Your task to perform on an android device: Search for vegetarian restaurants on Maps Image 0: 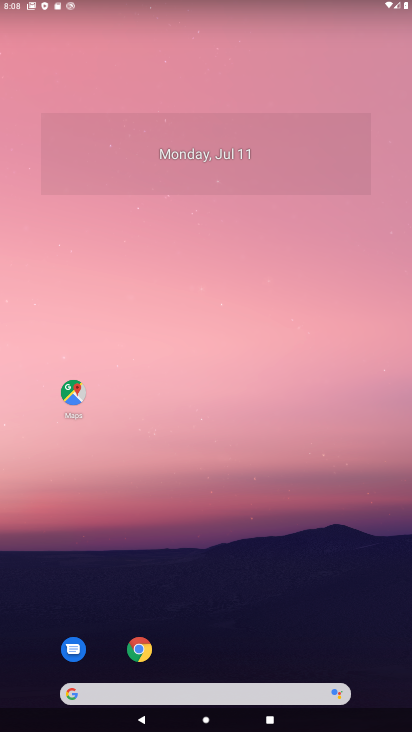
Step 0: click (71, 393)
Your task to perform on an android device: Search for vegetarian restaurants on Maps Image 1: 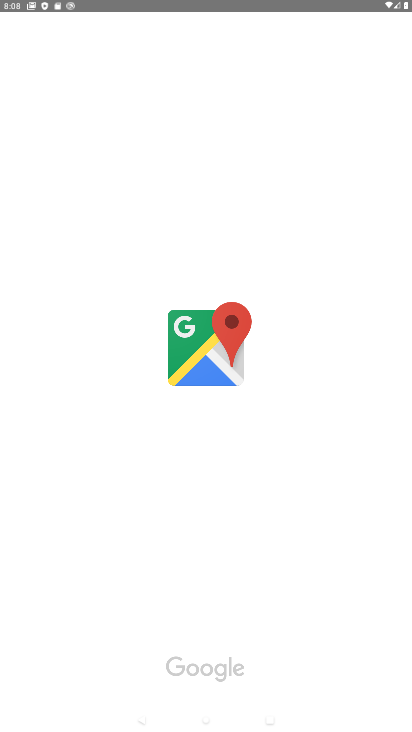
Step 1: click (77, 394)
Your task to perform on an android device: Search for vegetarian restaurants on Maps Image 2: 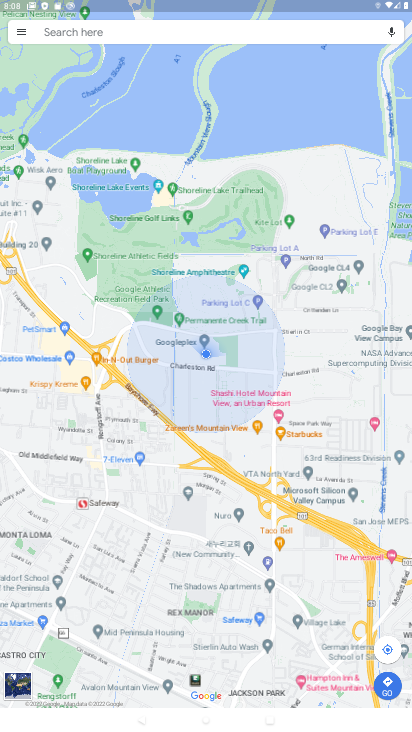
Step 2: click (212, 32)
Your task to perform on an android device: Search for vegetarian restaurants on Maps Image 3: 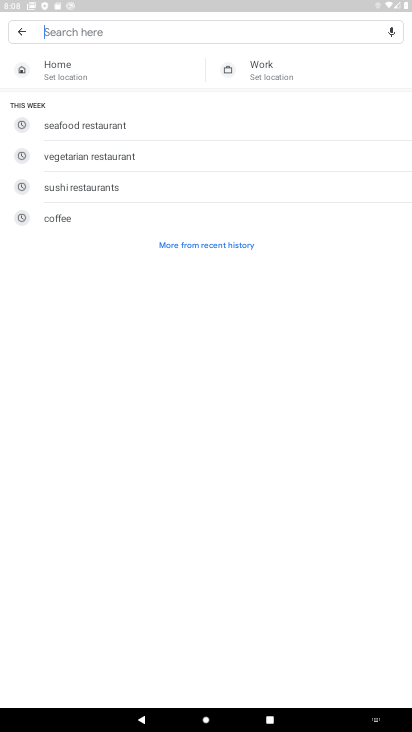
Step 3: type "vegetarian restaurants"
Your task to perform on an android device: Search for vegetarian restaurants on Maps Image 4: 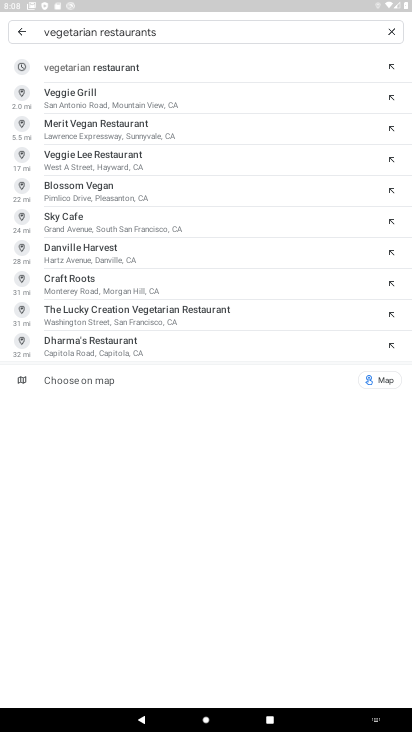
Step 4: press enter
Your task to perform on an android device: Search for vegetarian restaurants on Maps Image 5: 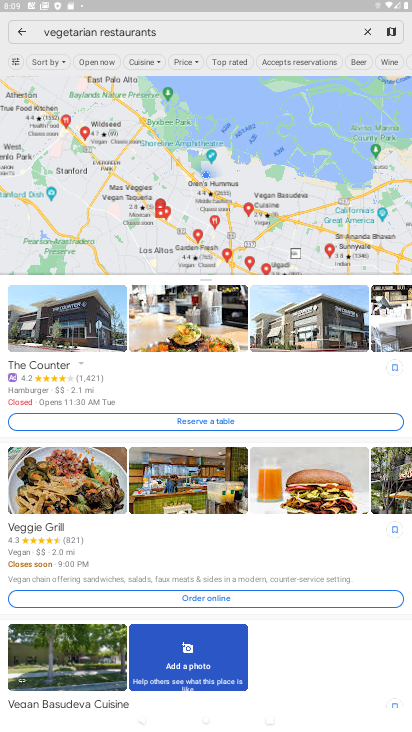
Step 5: task complete